Your task to perform on an android device: Go to sound settings Image 0: 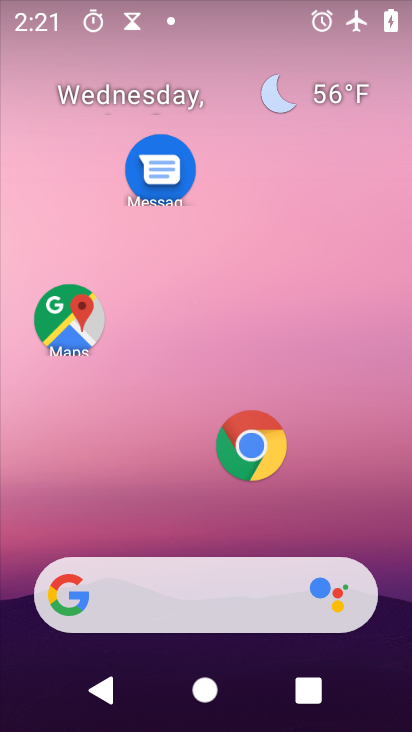
Step 0: drag from (227, 524) to (288, 165)
Your task to perform on an android device: Go to sound settings Image 1: 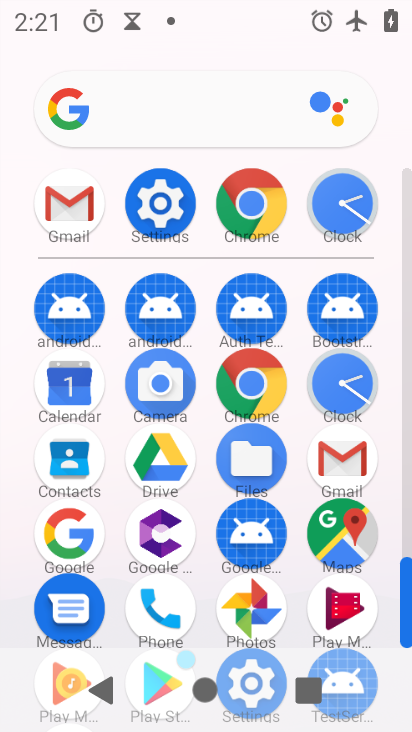
Step 1: drag from (198, 261) to (198, 82)
Your task to perform on an android device: Go to sound settings Image 2: 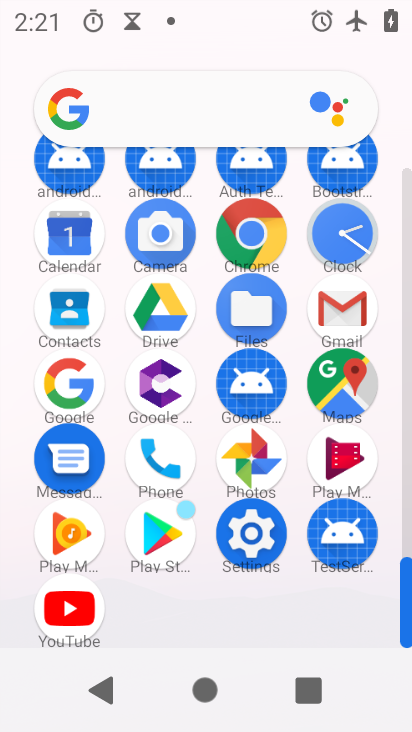
Step 2: click (249, 532)
Your task to perform on an android device: Go to sound settings Image 3: 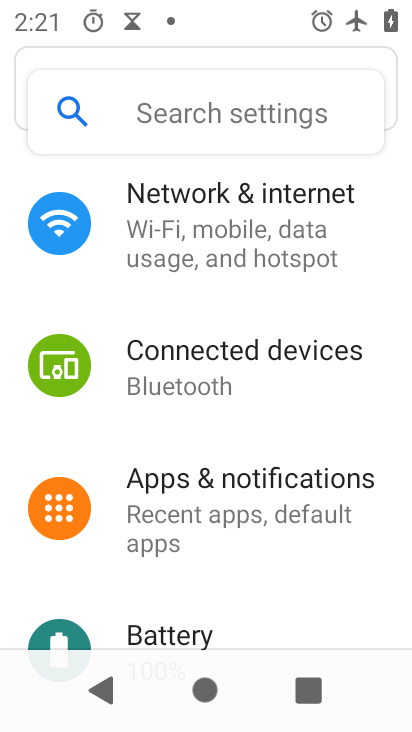
Step 3: drag from (215, 574) to (205, 256)
Your task to perform on an android device: Go to sound settings Image 4: 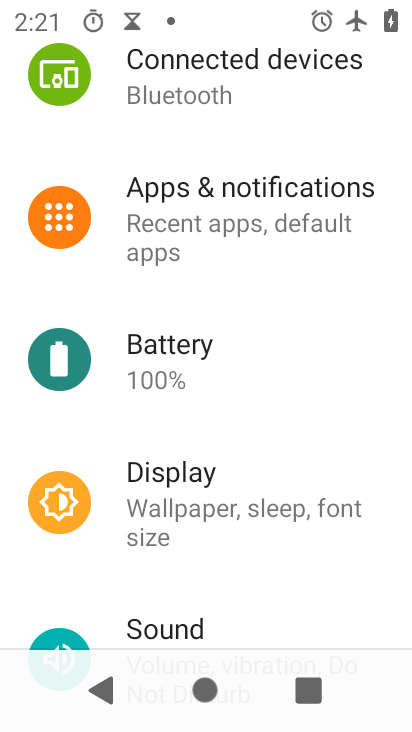
Step 4: drag from (194, 605) to (202, 354)
Your task to perform on an android device: Go to sound settings Image 5: 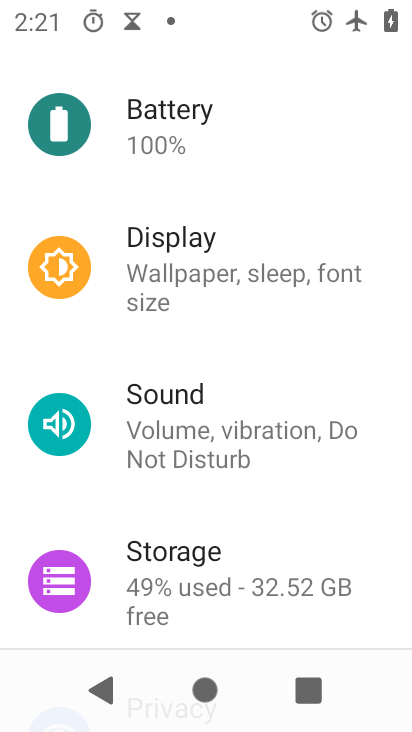
Step 5: click (206, 450)
Your task to perform on an android device: Go to sound settings Image 6: 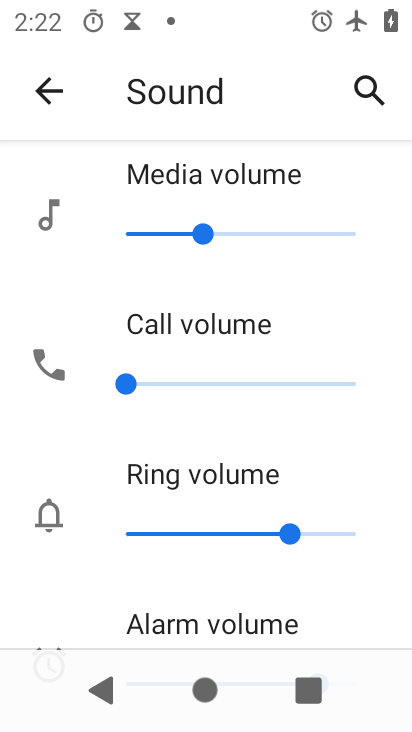
Step 6: task complete